Your task to perform on an android device: What is the news today? Image 0: 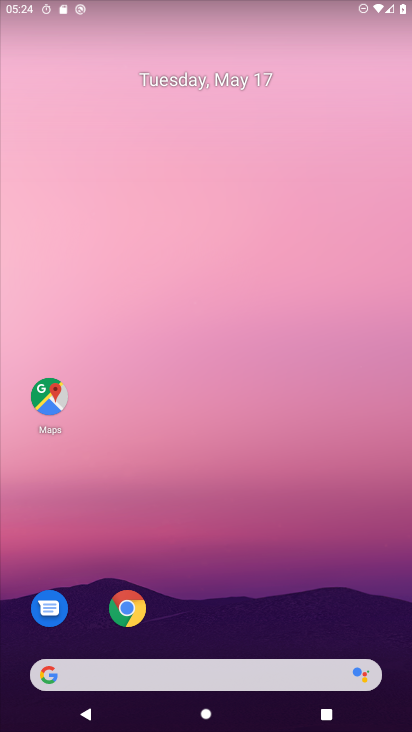
Step 0: drag from (207, 632) to (199, 270)
Your task to perform on an android device: What is the news today? Image 1: 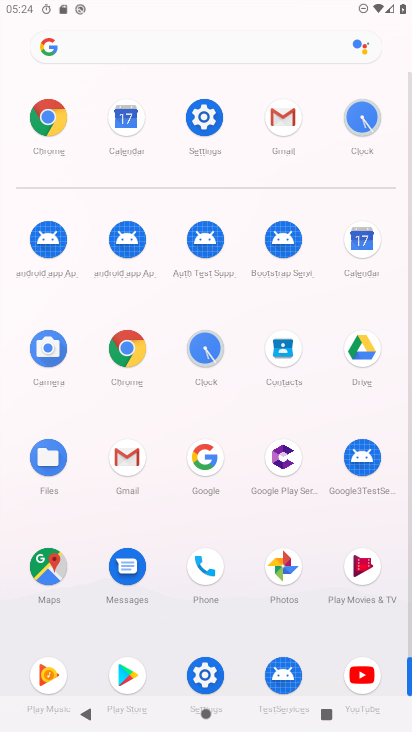
Step 1: click (205, 451)
Your task to perform on an android device: What is the news today? Image 2: 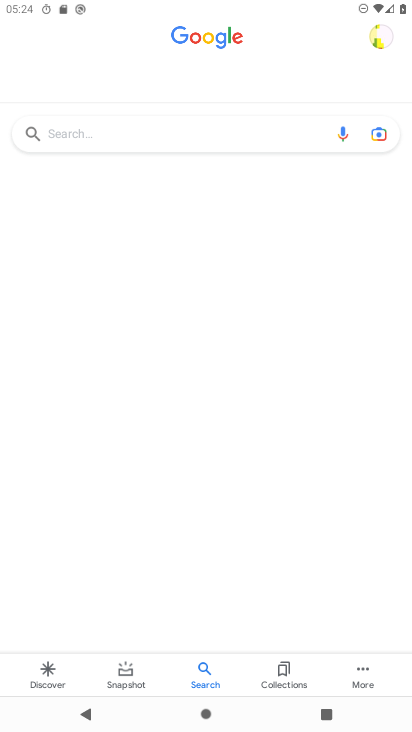
Step 2: click (96, 131)
Your task to perform on an android device: What is the news today? Image 3: 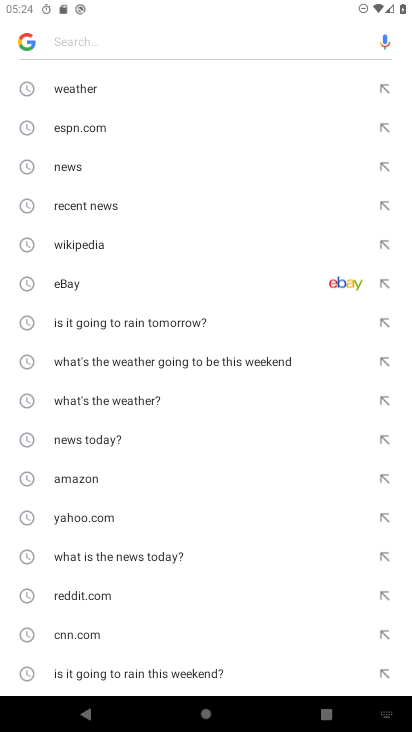
Step 3: click (84, 438)
Your task to perform on an android device: What is the news today? Image 4: 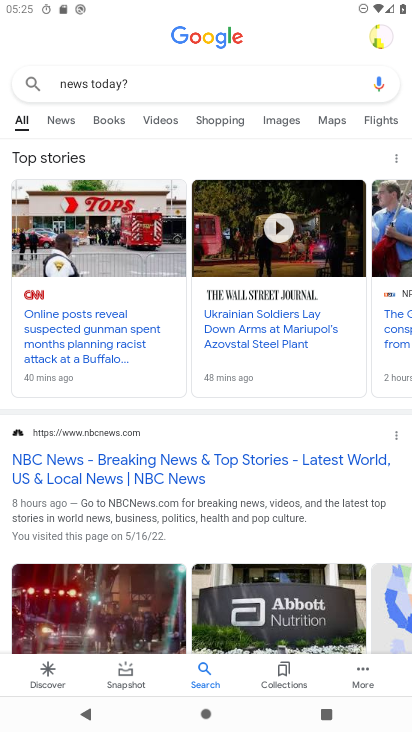
Step 4: task complete